Your task to perform on an android device: Check the news Image 0: 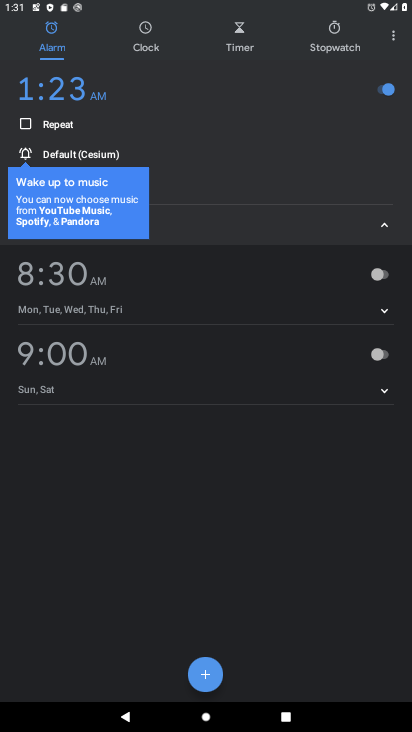
Step 0: press home button
Your task to perform on an android device: Check the news Image 1: 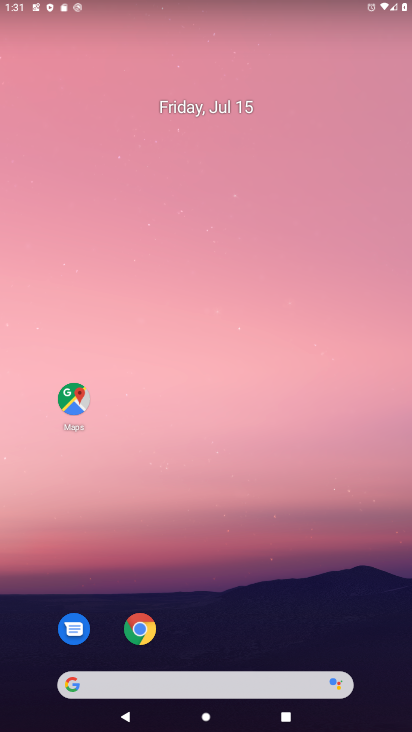
Step 1: drag from (281, 608) to (263, 141)
Your task to perform on an android device: Check the news Image 2: 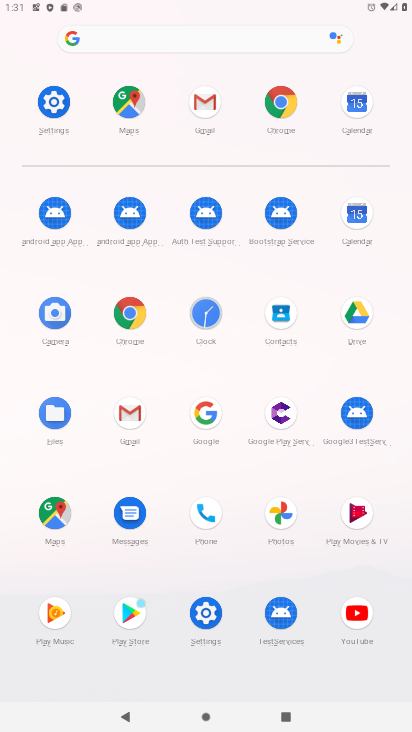
Step 2: click (279, 106)
Your task to perform on an android device: Check the news Image 3: 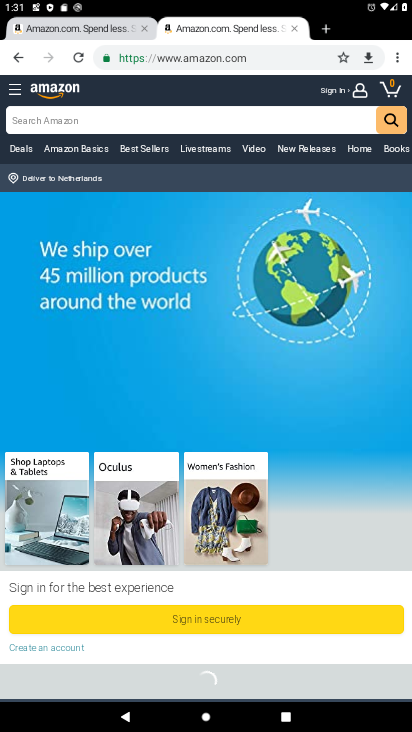
Step 3: click (245, 51)
Your task to perform on an android device: Check the news Image 4: 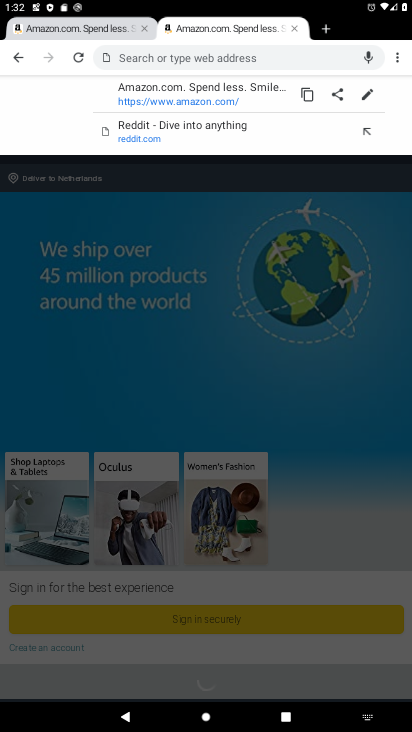
Step 4: type "news"
Your task to perform on an android device: Check the news Image 5: 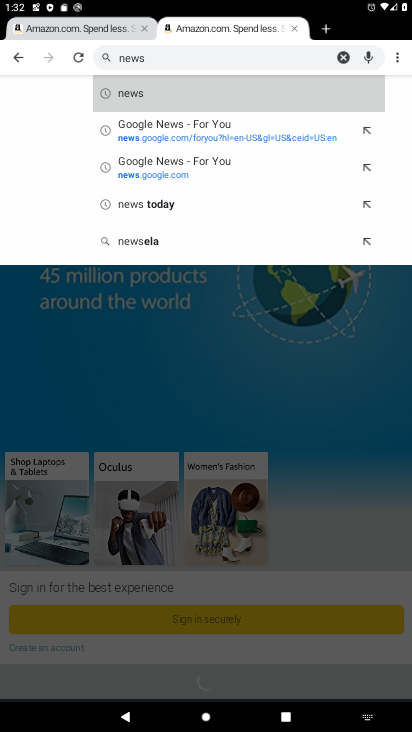
Step 5: click (176, 100)
Your task to perform on an android device: Check the news Image 6: 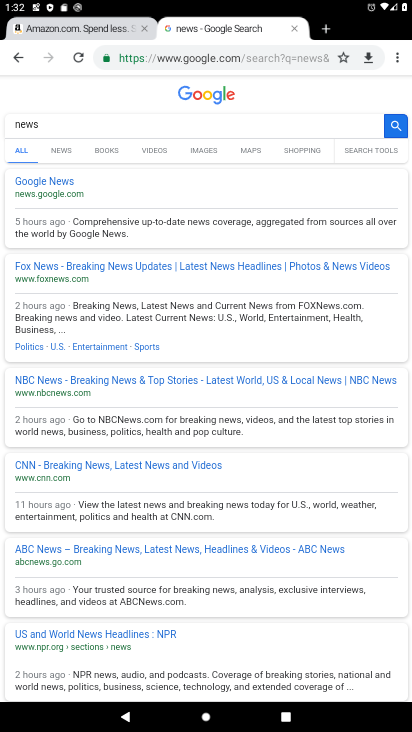
Step 6: click (57, 184)
Your task to perform on an android device: Check the news Image 7: 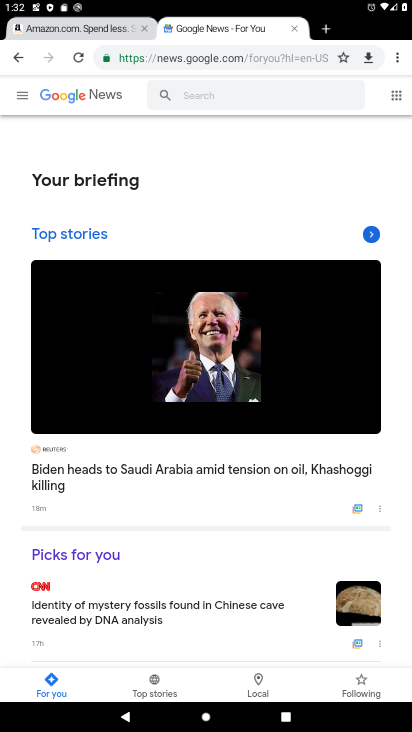
Step 7: task complete